Your task to perform on an android device: toggle data saver in the chrome app Image 0: 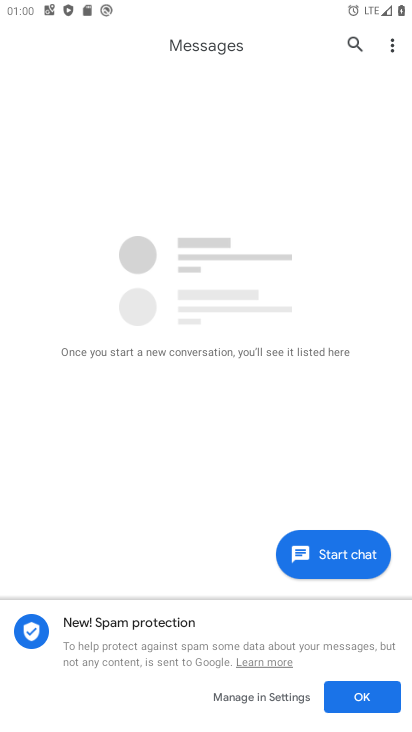
Step 0: drag from (248, 644) to (243, 350)
Your task to perform on an android device: toggle data saver in the chrome app Image 1: 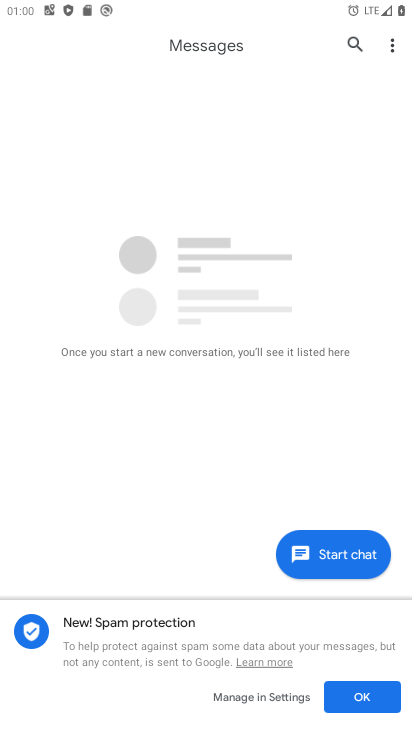
Step 1: press home button
Your task to perform on an android device: toggle data saver in the chrome app Image 2: 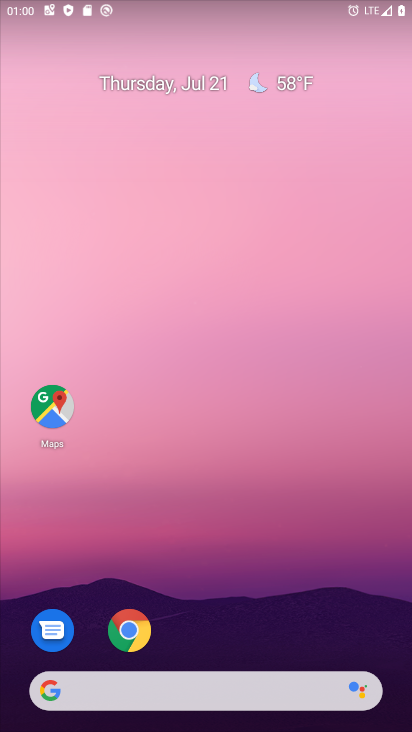
Step 2: click (119, 622)
Your task to perform on an android device: toggle data saver in the chrome app Image 3: 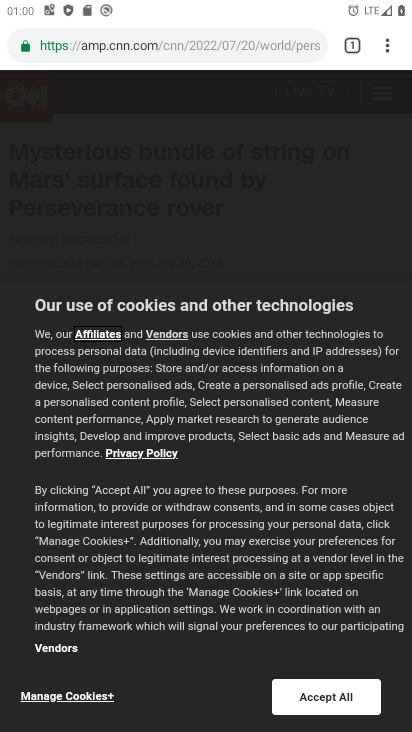
Step 3: click (390, 40)
Your task to perform on an android device: toggle data saver in the chrome app Image 4: 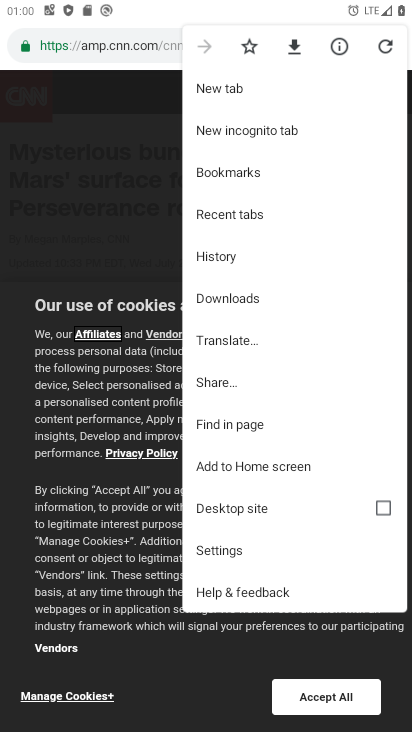
Step 4: click (228, 548)
Your task to perform on an android device: toggle data saver in the chrome app Image 5: 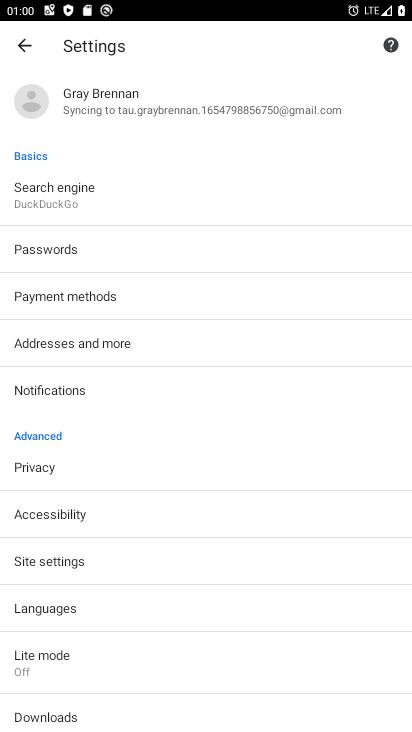
Step 5: click (40, 671)
Your task to perform on an android device: toggle data saver in the chrome app Image 6: 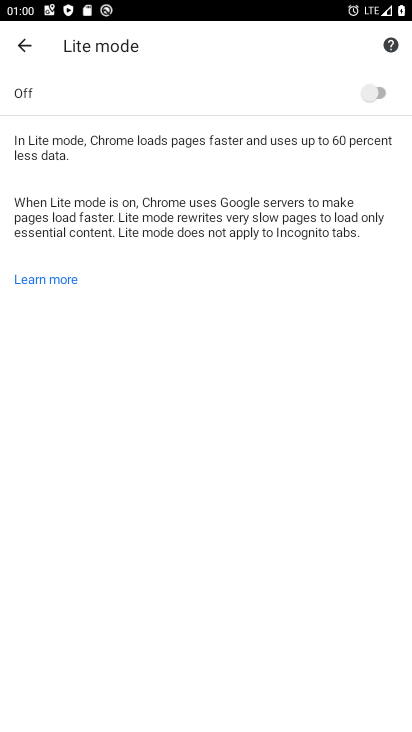
Step 6: click (381, 85)
Your task to perform on an android device: toggle data saver in the chrome app Image 7: 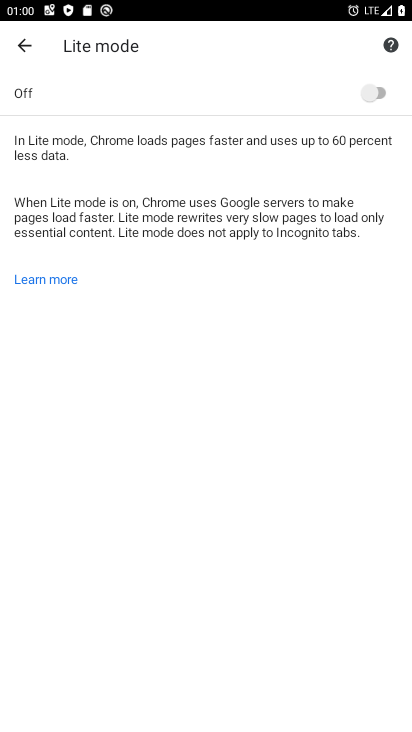
Step 7: click (381, 85)
Your task to perform on an android device: toggle data saver in the chrome app Image 8: 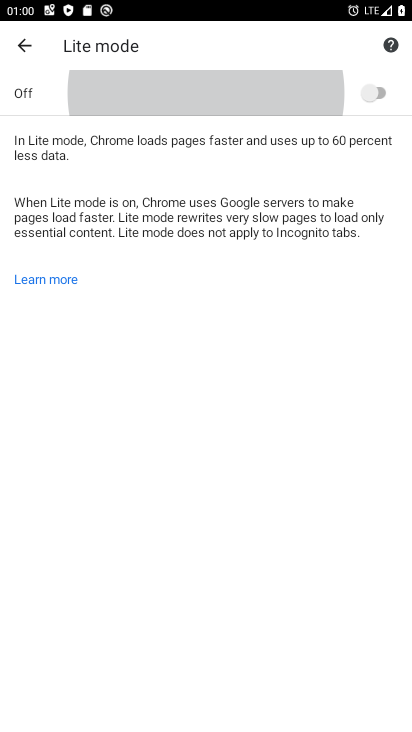
Step 8: click (381, 85)
Your task to perform on an android device: toggle data saver in the chrome app Image 9: 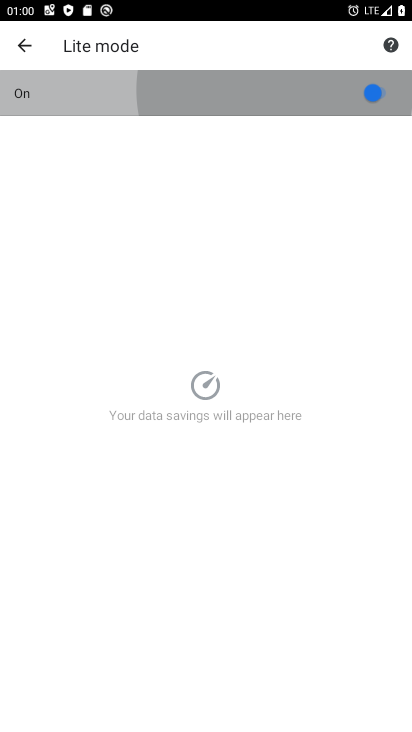
Step 9: click (381, 85)
Your task to perform on an android device: toggle data saver in the chrome app Image 10: 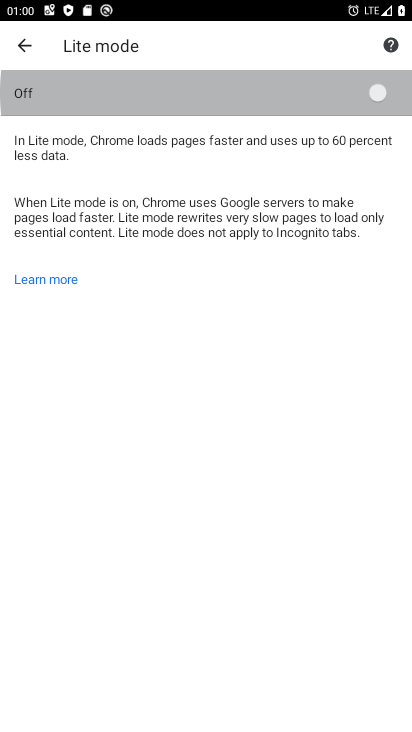
Step 10: click (381, 85)
Your task to perform on an android device: toggle data saver in the chrome app Image 11: 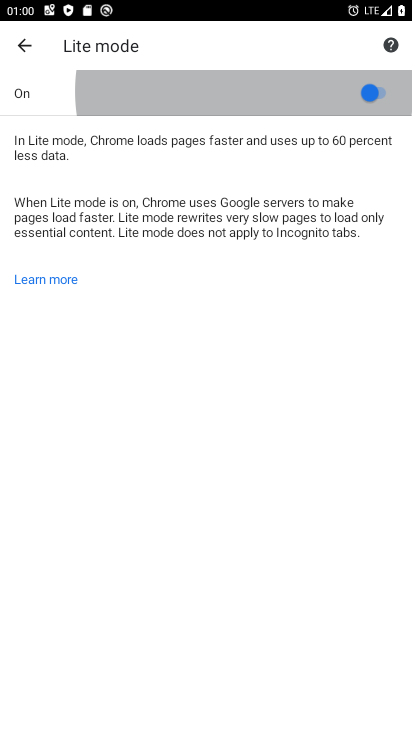
Step 11: click (381, 85)
Your task to perform on an android device: toggle data saver in the chrome app Image 12: 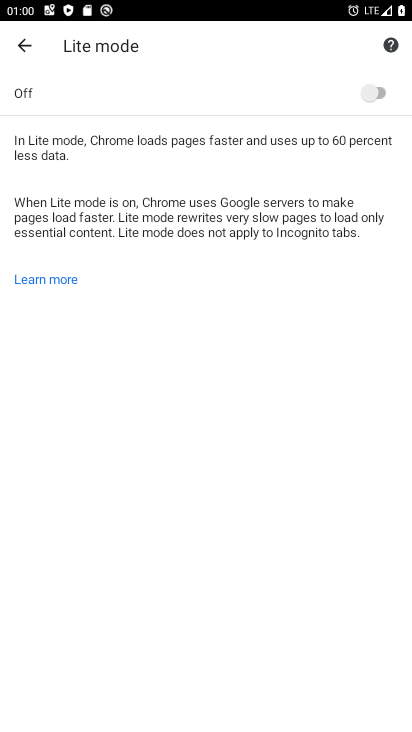
Step 12: task complete